Your task to perform on an android device: toggle airplane mode Image 0: 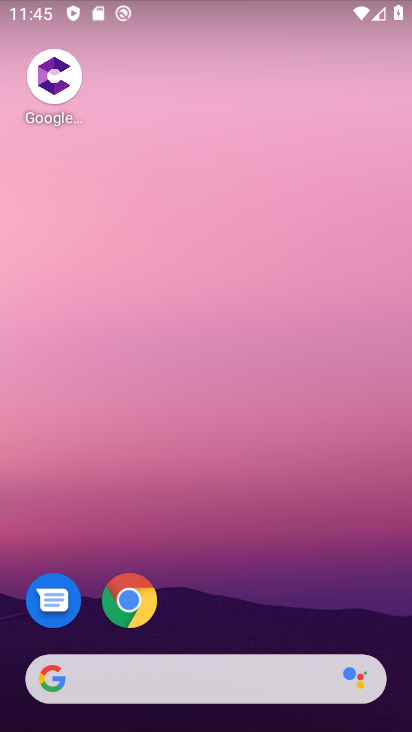
Step 0: drag from (255, 560) to (231, 7)
Your task to perform on an android device: toggle airplane mode Image 1: 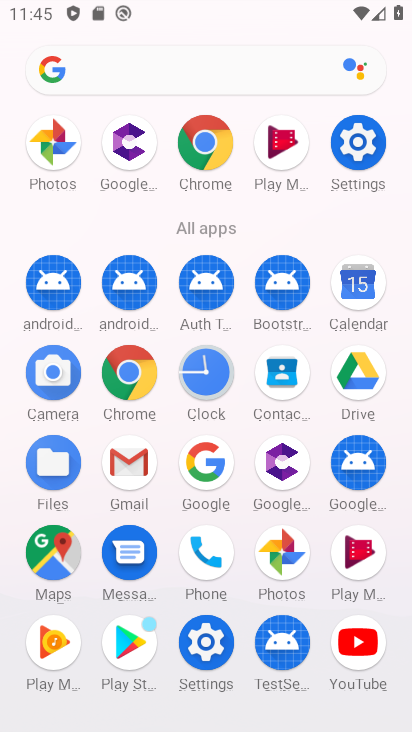
Step 1: drag from (3, 525) to (10, 250)
Your task to perform on an android device: toggle airplane mode Image 2: 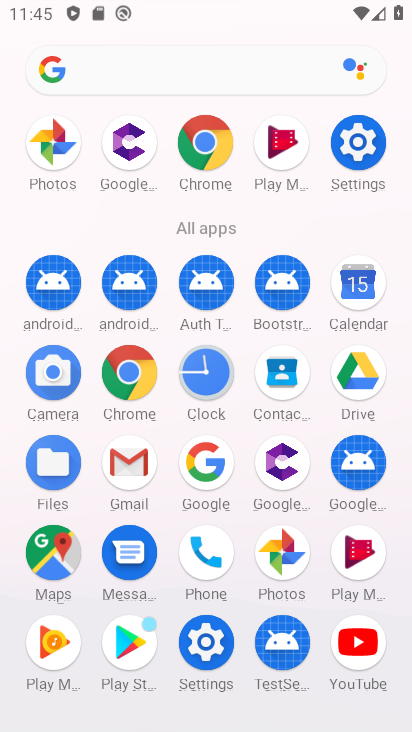
Step 2: click (204, 637)
Your task to perform on an android device: toggle airplane mode Image 3: 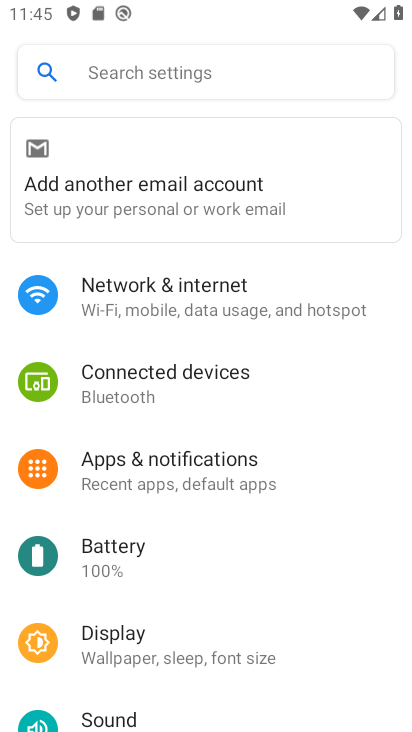
Step 3: click (209, 302)
Your task to perform on an android device: toggle airplane mode Image 4: 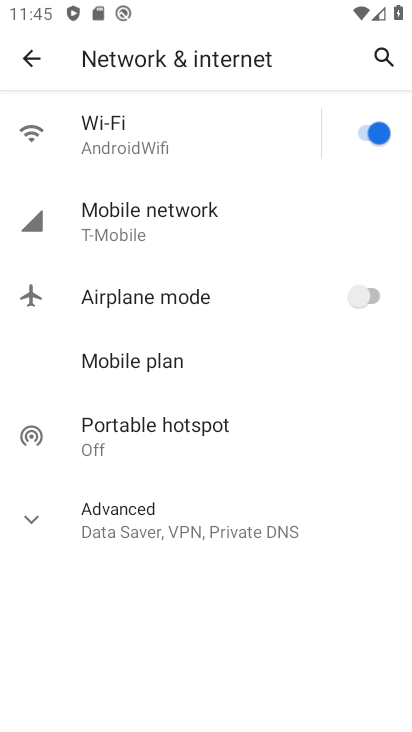
Step 4: click (366, 298)
Your task to perform on an android device: toggle airplane mode Image 5: 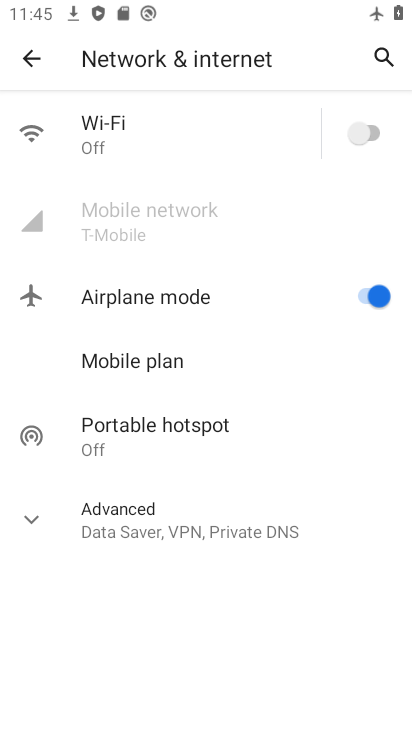
Step 5: task complete